Your task to perform on an android device: Show me productivity apps on the Play Store Image 0: 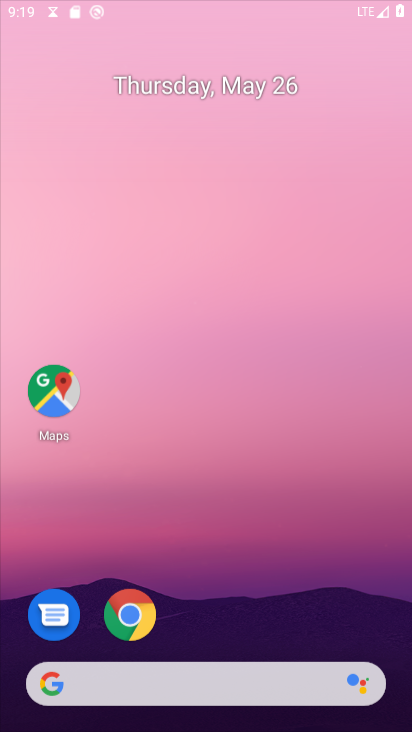
Step 0: drag from (205, 589) to (248, 218)
Your task to perform on an android device: Show me productivity apps on the Play Store Image 1: 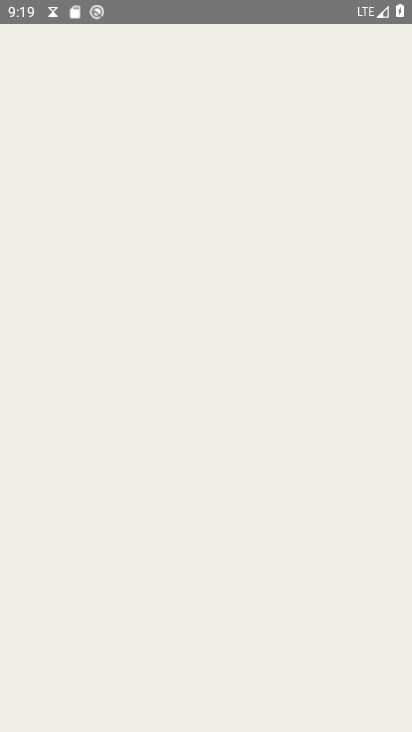
Step 1: press home button
Your task to perform on an android device: Show me productivity apps on the Play Store Image 2: 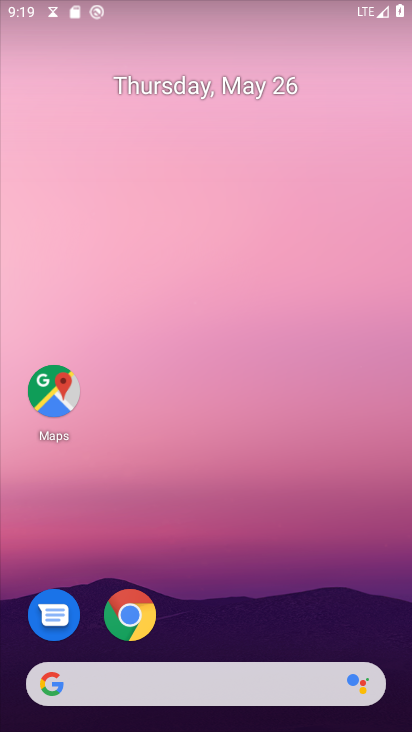
Step 2: drag from (209, 607) to (188, 239)
Your task to perform on an android device: Show me productivity apps on the Play Store Image 3: 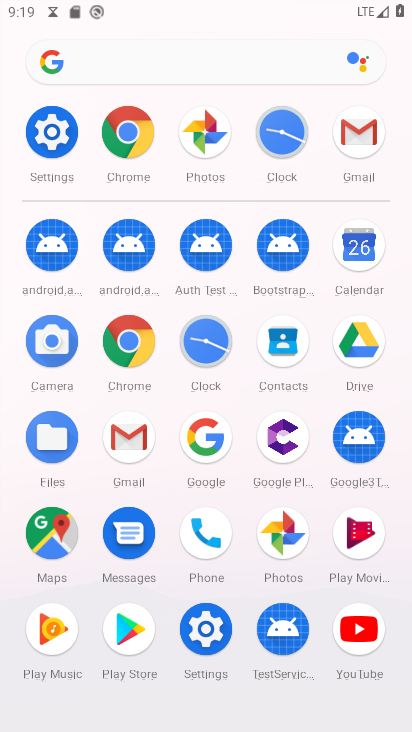
Step 3: click (139, 630)
Your task to perform on an android device: Show me productivity apps on the Play Store Image 4: 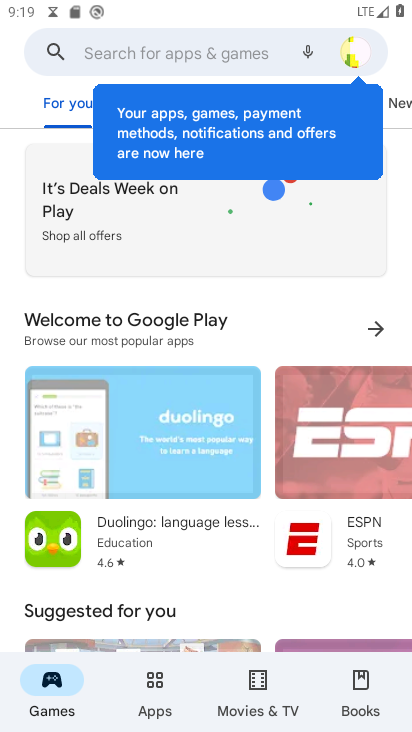
Step 4: click (156, 678)
Your task to perform on an android device: Show me productivity apps on the Play Store Image 5: 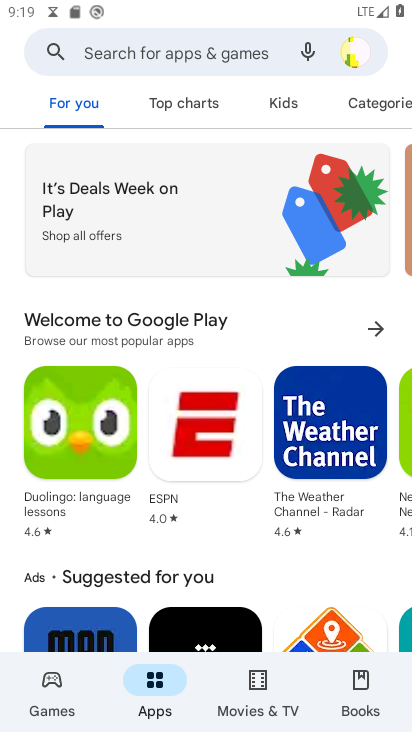
Step 5: task complete